Your task to perform on an android device: uninstall "McDonald's" Image 0: 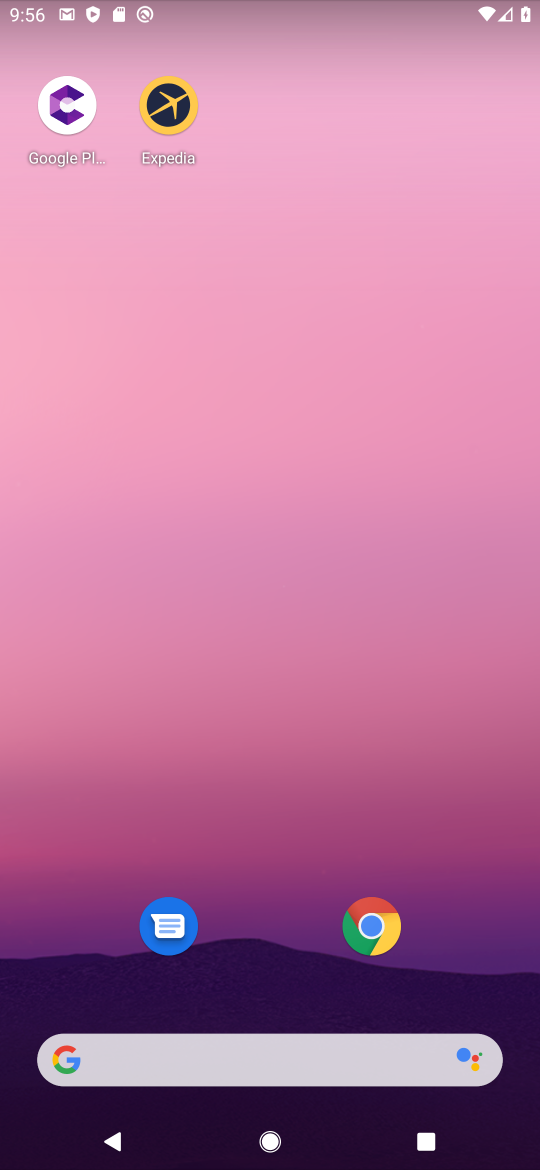
Step 0: drag from (217, 443) to (267, 210)
Your task to perform on an android device: uninstall "McDonald's" Image 1: 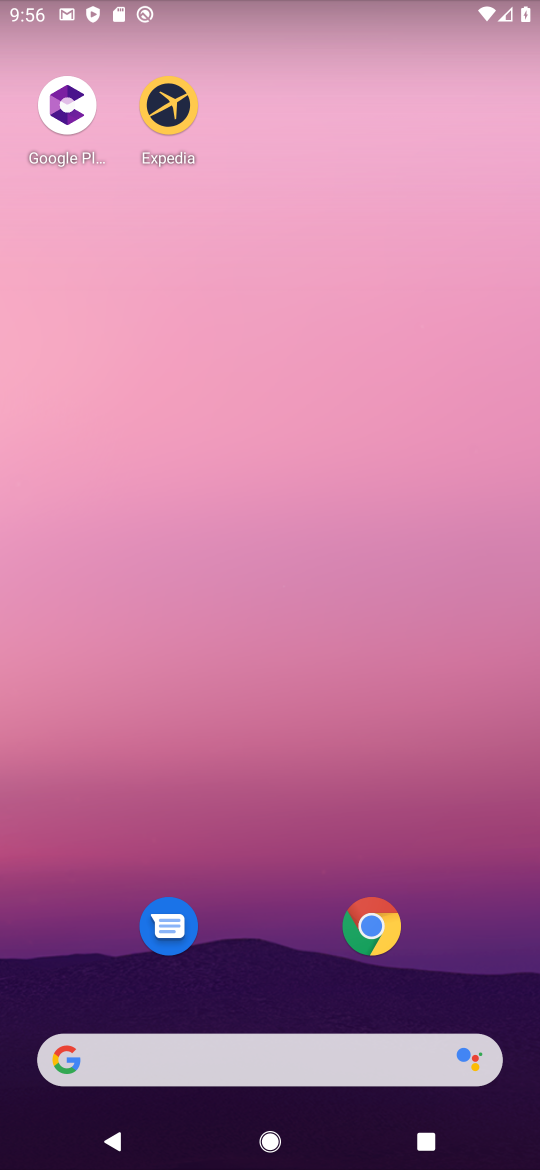
Step 1: drag from (360, 997) to (497, 56)
Your task to perform on an android device: uninstall "McDonald's" Image 2: 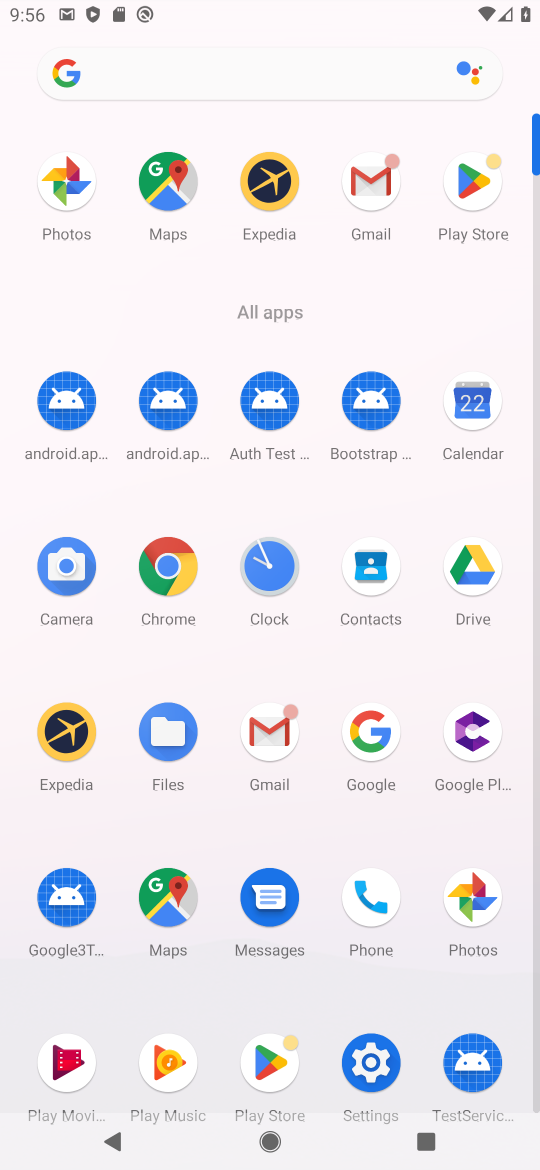
Step 2: click (475, 185)
Your task to perform on an android device: uninstall "McDonald's" Image 3: 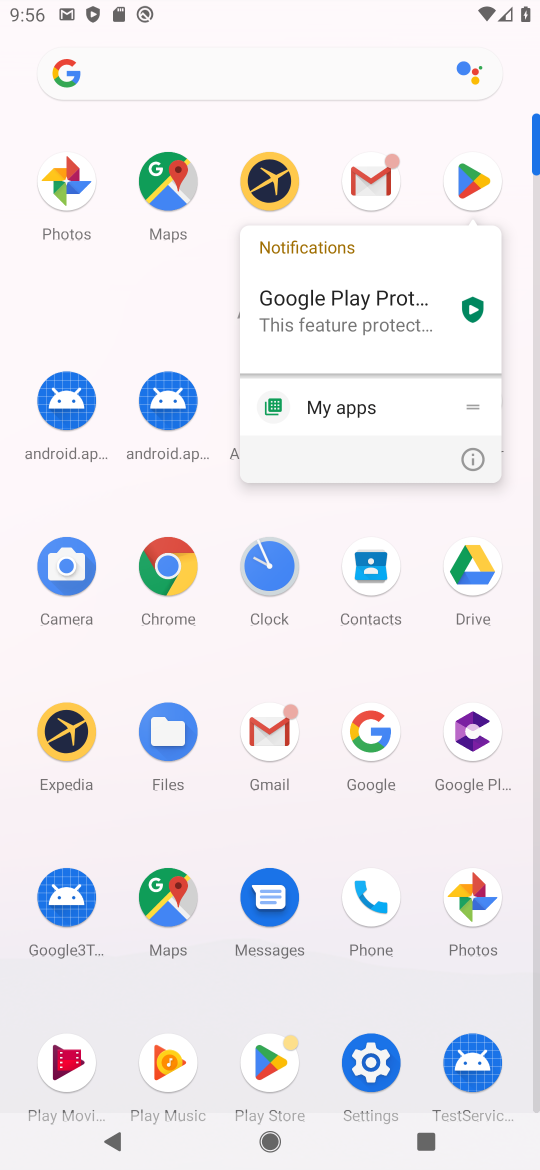
Step 3: click (462, 179)
Your task to perform on an android device: uninstall "McDonald's" Image 4: 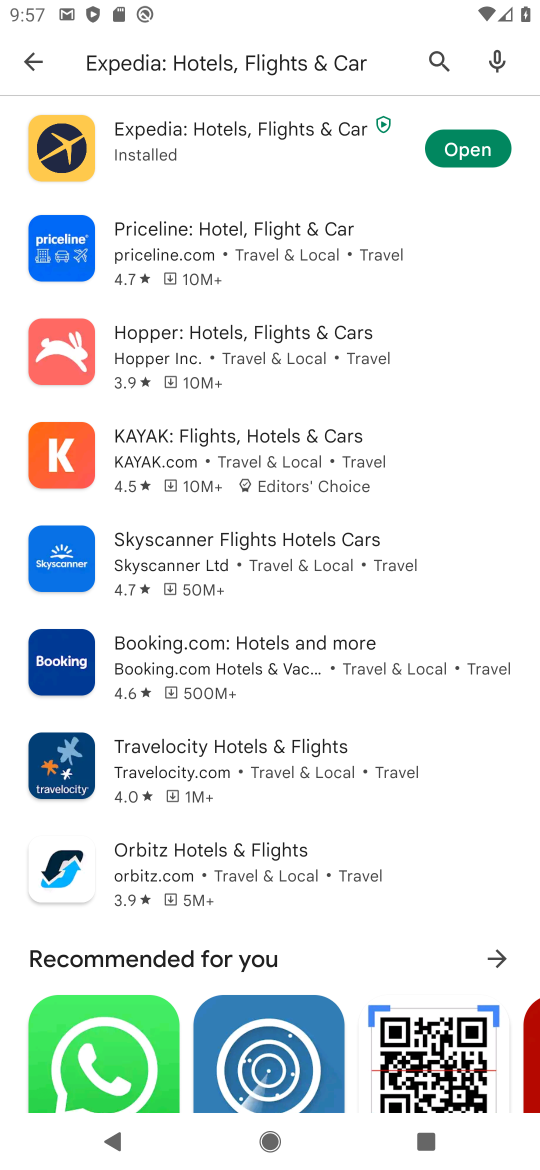
Step 4: press back button
Your task to perform on an android device: uninstall "McDonald's" Image 5: 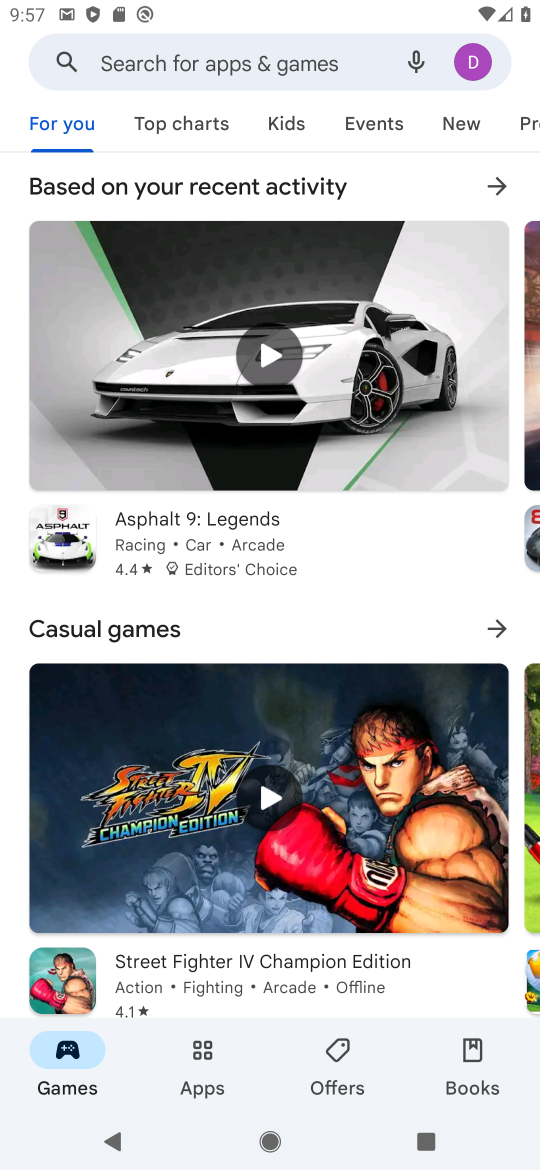
Step 5: click (152, 57)
Your task to perform on an android device: uninstall "McDonald's" Image 6: 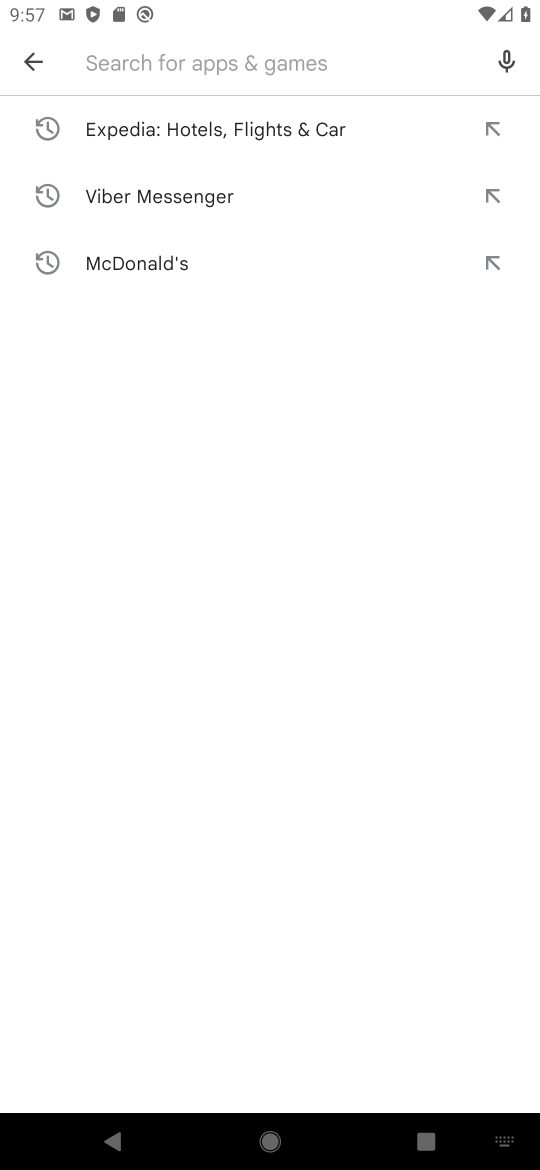
Step 6: type "McDonald's"
Your task to perform on an android device: uninstall "McDonald's" Image 7: 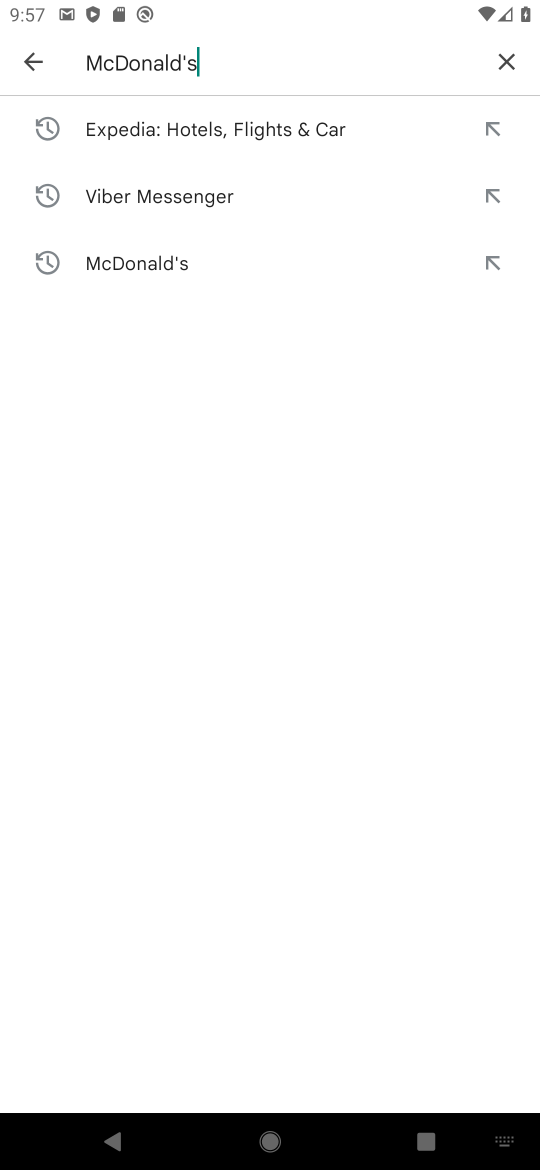
Step 7: press enter
Your task to perform on an android device: uninstall "McDonald's" Image 8: 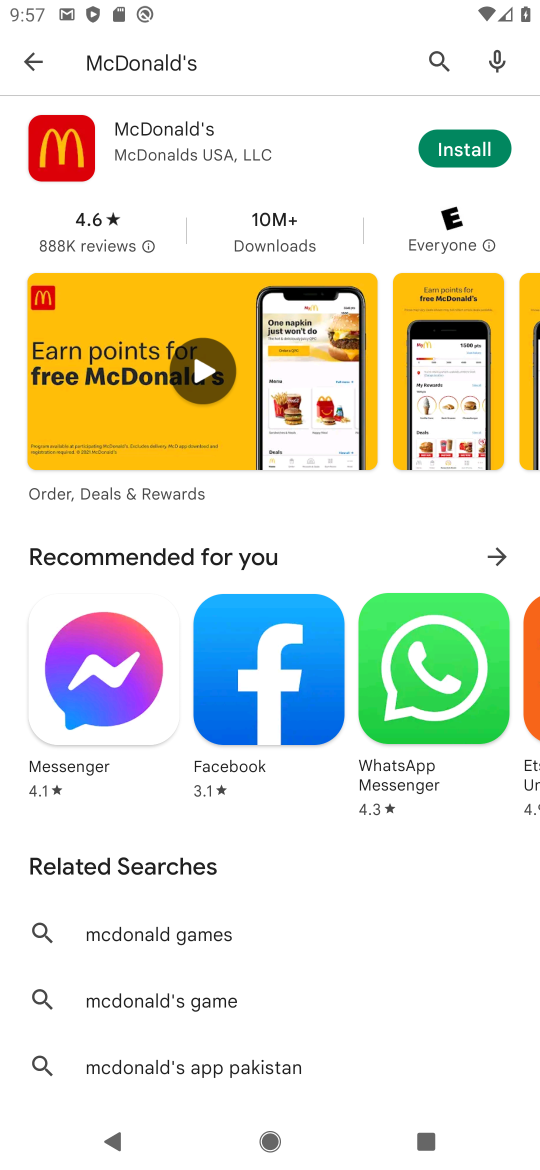
Step 8: task complete